Your task to perform on an android device: turn on priority inbox in the gmail app Image 0: 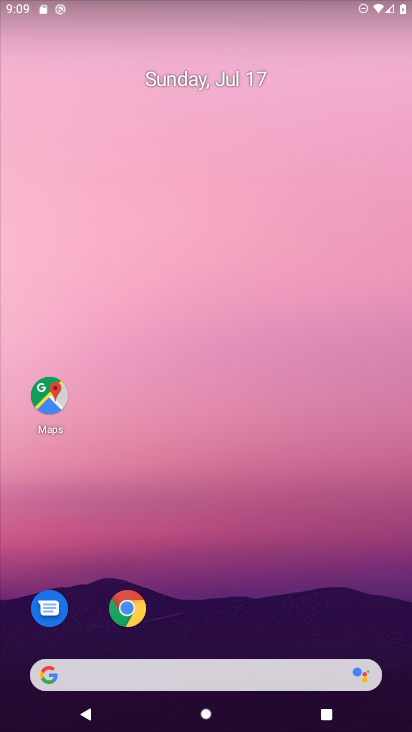
Step 0: drag from (185, 667) to (232, 105)
Your task to perform on an android device: turn on priority inbox in the gmail app Image 1: 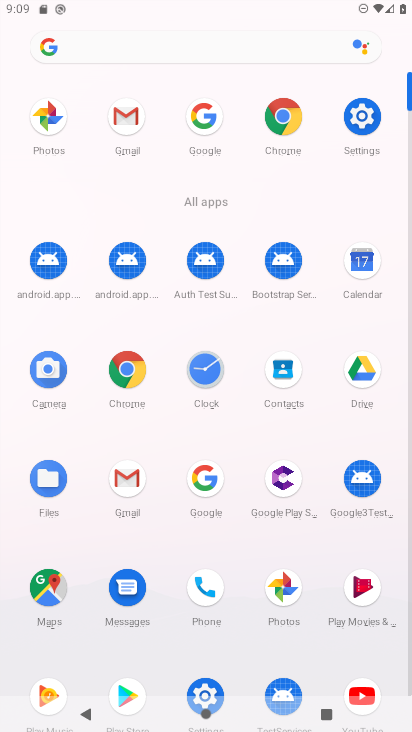
Step 1: click (127, 118)
Your task to perform on an android device: turn on priority inbox in the gmail app Image 2: 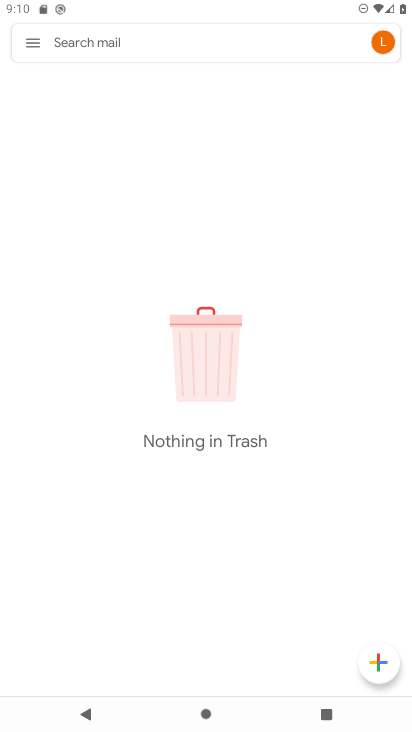
Step 2: click (32, 44)
Your task to perform on an android device: turn on priority inbox in the gmail app Image 3: 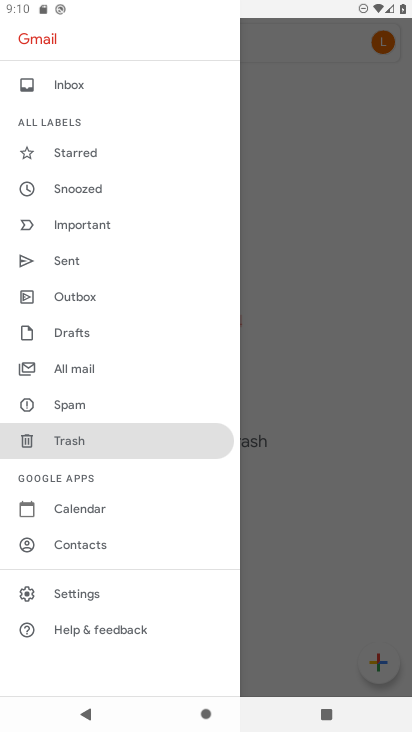
Step 3: click (84, 593)
Your task to perform on an android device: turn on priority inbox in the gmail app Image 4: 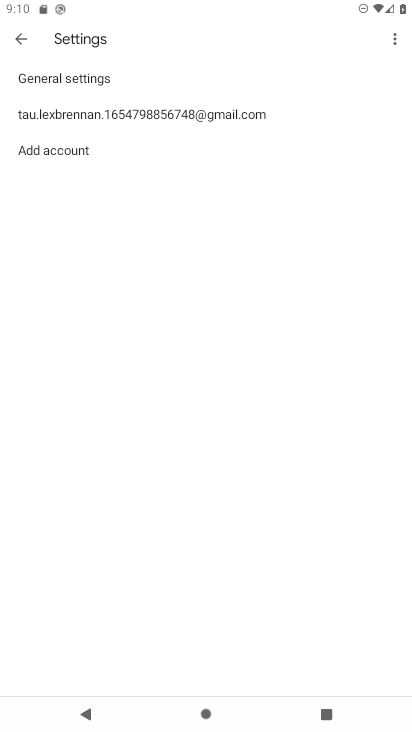
Step 4: click (233, 117)
Your task to perform on an android device: turn on priority inbox in the gmail app Image 5: 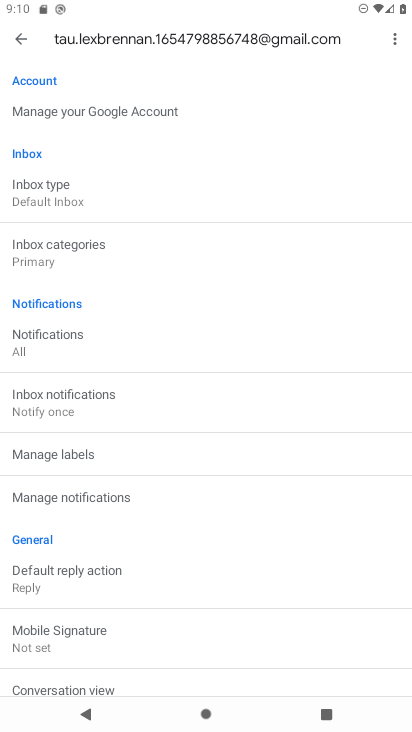
Step 5: click (79, 207)
Your task to perform on an android device: turn on priority inbox in the gmail app Image 6: 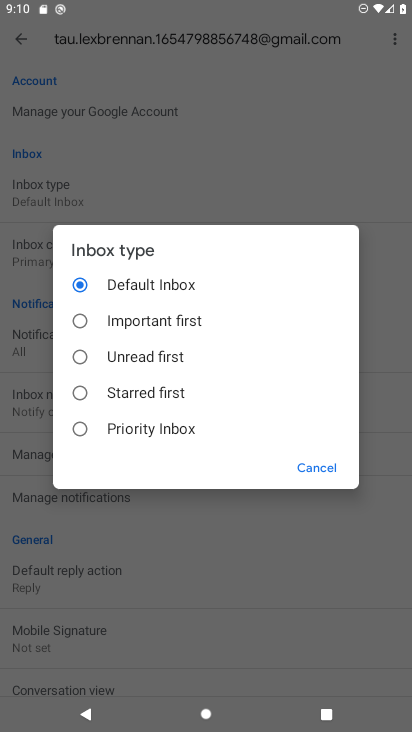
Step 6: click (82, 432)
Your task to perform on an android device: turn on priority inbox in the gmail app Image 7: 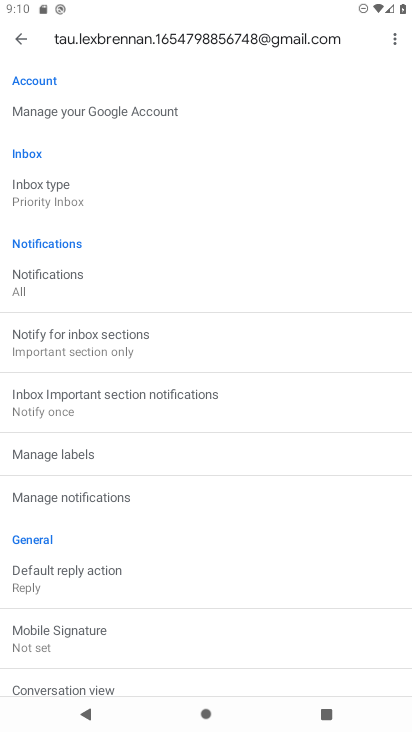
Step 7: task complete